Your task to perform on an android device: Check the weather Image 0: 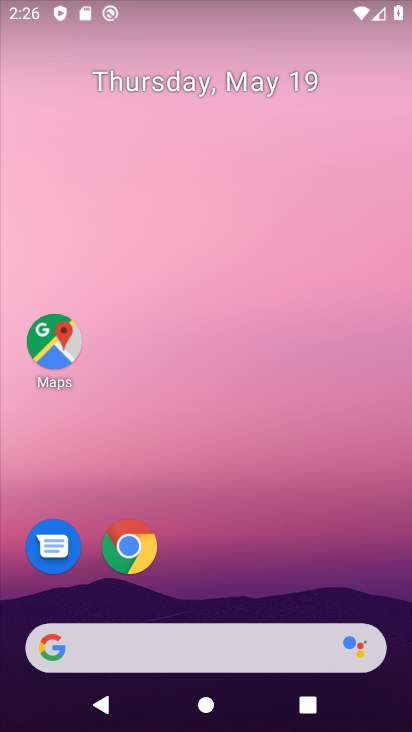
Step 0: press home button
Your task to perform on an android device: Check the weather Image 1: 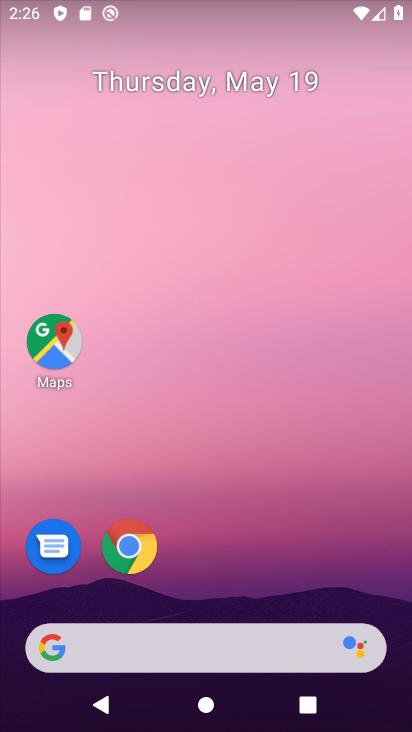
Step 1: click (51, 659)
Your task to perform on an android device: Check the weather Image 2: 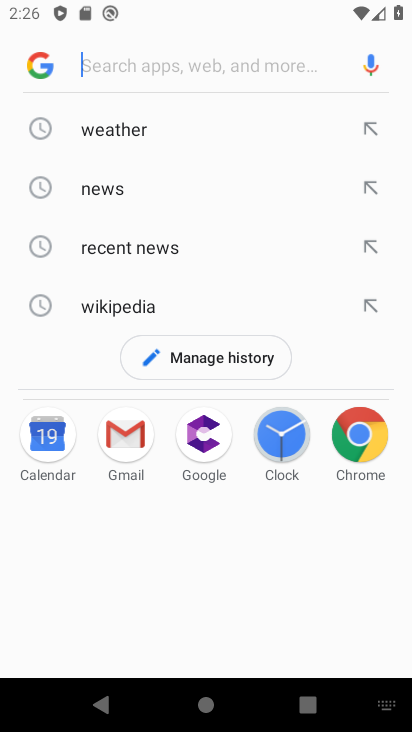
Step 2: click (137, 131)
Your task to perform on an android device: Check the weather Image 3: 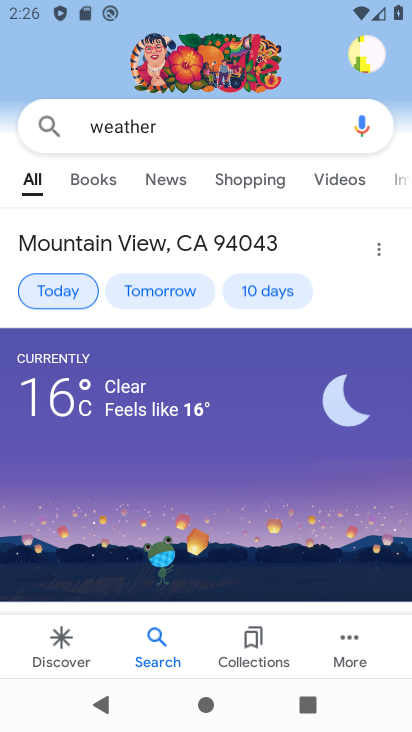
Step 3: task complete